Your task to perform on an android device: What is the recent news? Image 0: 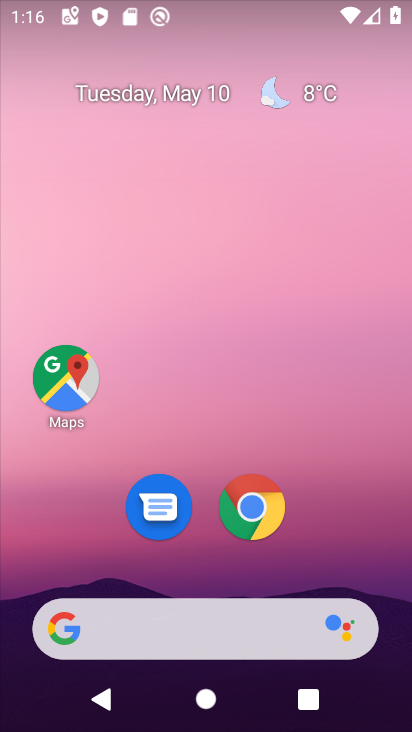
Step 0: press home button
Your task to perform on an android device: What is the recent news? Image 1: 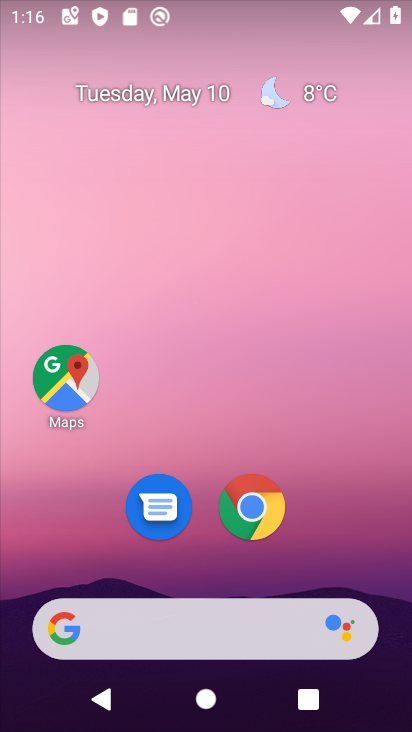
Step 1: drag from (238, 657) to (192, 194)
Your task to perform on an android device: What is the recent news? Image 2: 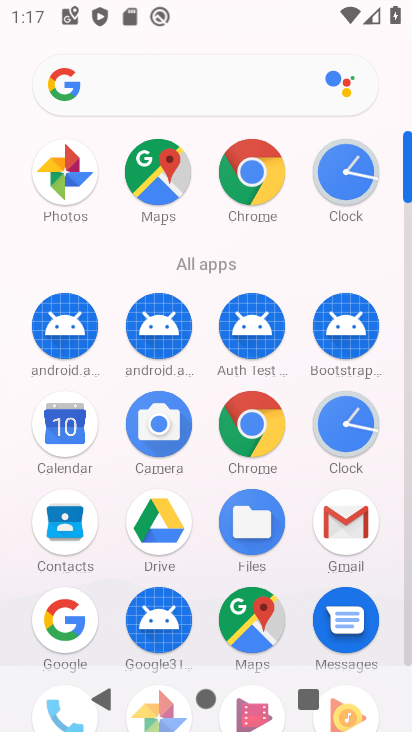
Step 2: click (124, 99)
Your task to perform on an android device: What is the recent news? Image 3: 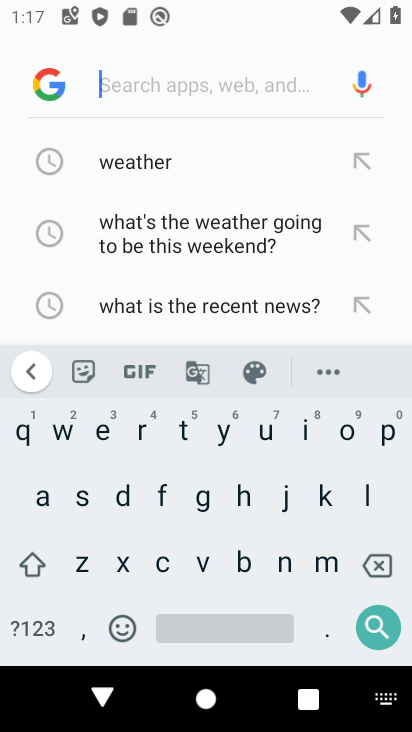
Step 3: click (143, 432)
Your task to perform on an android device: What is the recent news? Image 4: 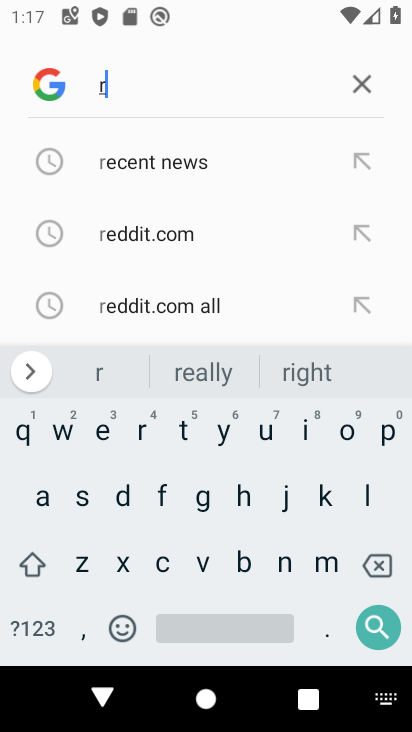
Step 4: click (172, 164)
Your task to perform on an android device: What is the recent news? Image 5: 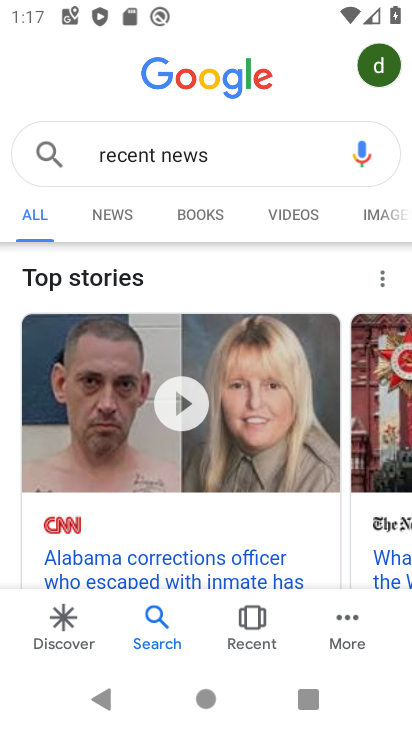
Step 5: task complete